Your task to perform on an android device: uninstall "LinkedIn" Image 0: 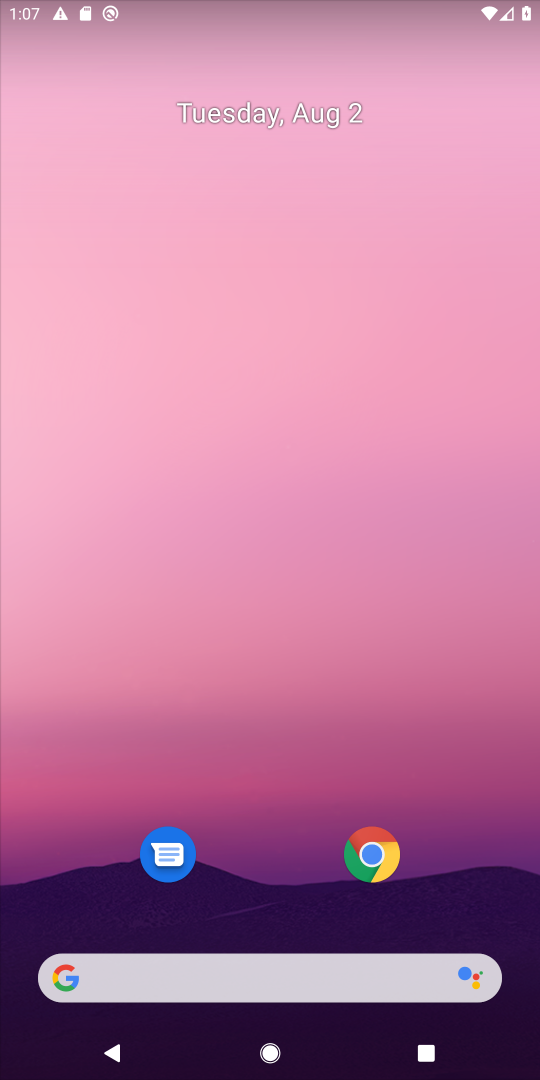
Step 0: drag from (300, 925) to (227, 310)
Your task to perform on an android device: uninstall "LinkedIn" Image 1: 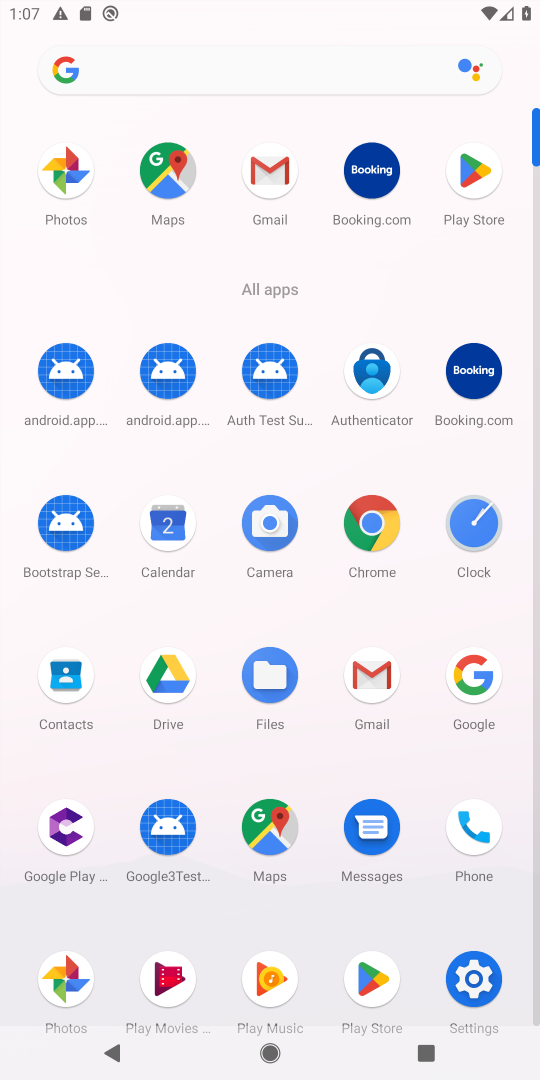
Step 1: click (474, 177)
Your task to perform on an android device: uninstall "LinkedIn" Image 2: 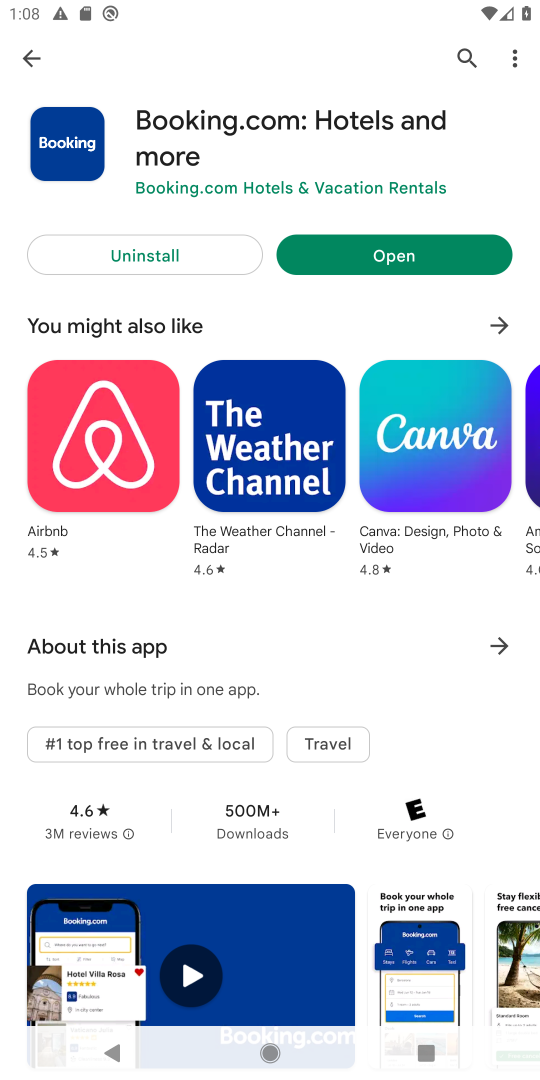
Step 2: click (457, 51)
Your task to perform on an android device: uninstall "LinkedIn" Image 3: 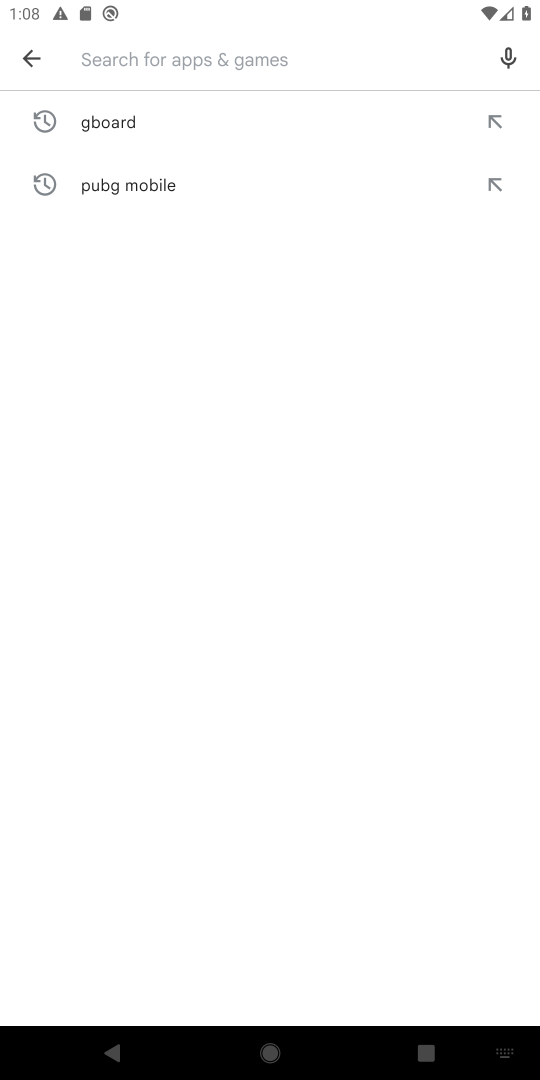
Step 3: type "LinkedIn"
Your task to perform on an android device: uninstall "LinkedIn" Image 4: 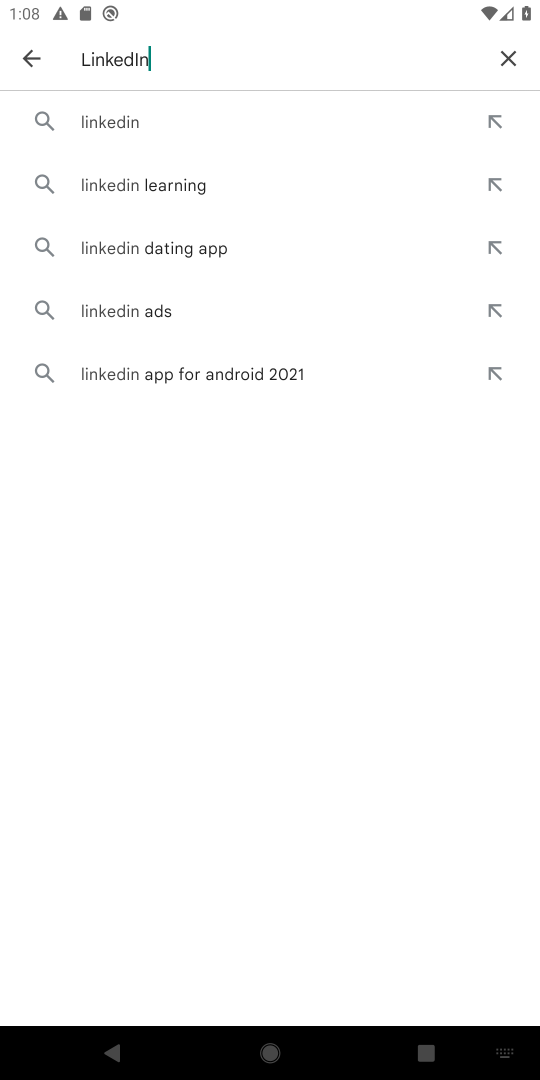
Step 4: click (105, 127)
Your task to perform on an android device: uninstall "LinkedIn" Image 5: 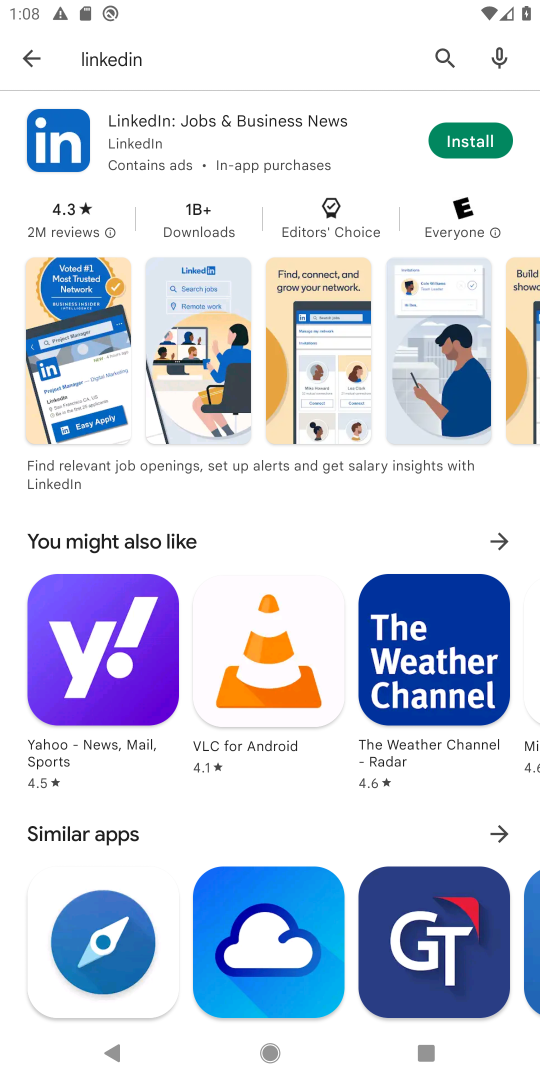
Step 5: click (163, 131)
Your task to perform on an android device: uninstall "LinkedIn" Image 6: 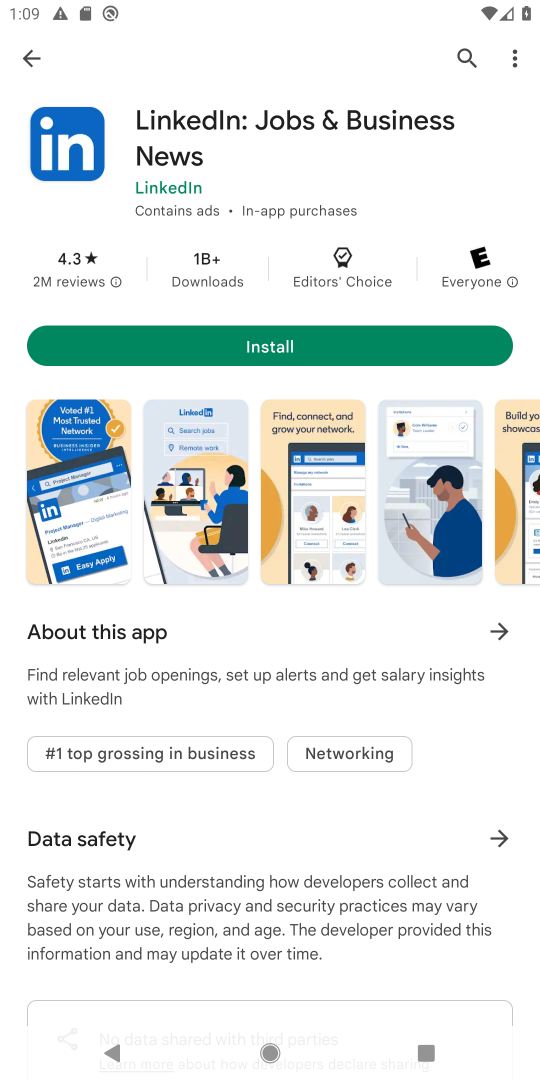
Step 6: task complete